Your task to perform on an android device: Go to accessibility settings Image 0: 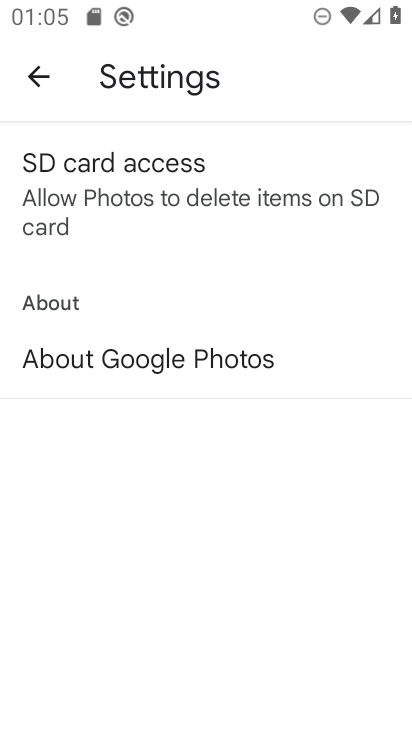
Step 0: press home button
Your task to perform on an android device: Go to accessibility settings Image 1: 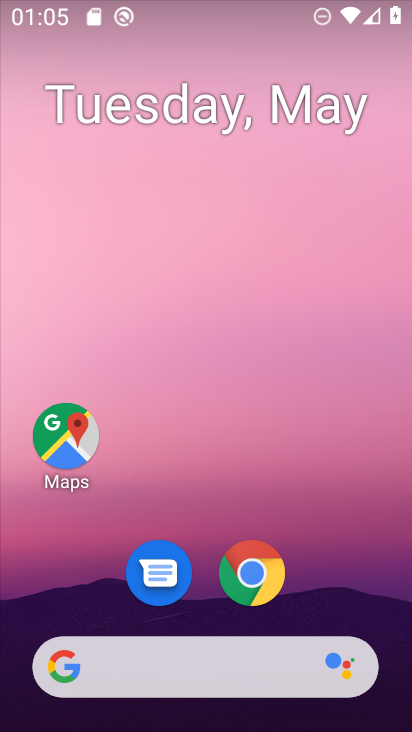
Step 1: drag from (349, 557) to (241, 9)
Your task to perform on an android device: Go to accessibility settings Image 2: 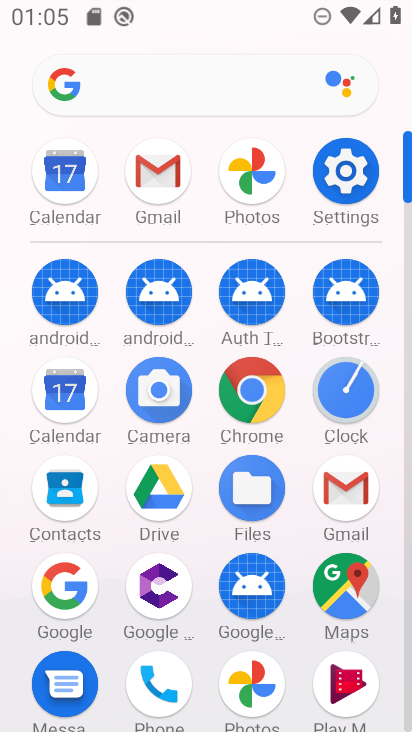
Step 2: click (355, 173)
Your task to perform on an android device: Go to accessibility settings Image 3: 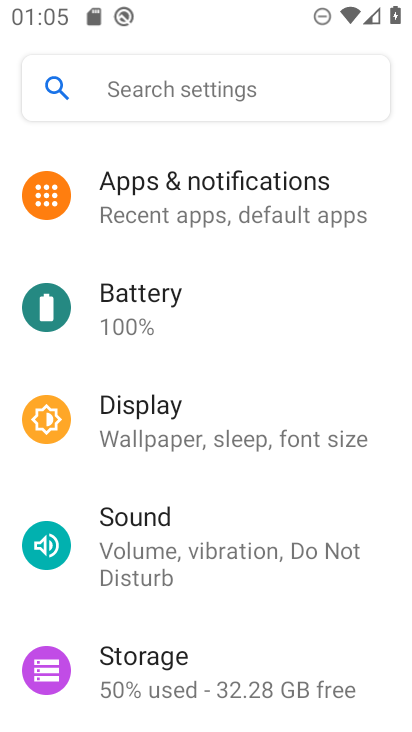
Step 3: drag from (280, 568) to (247, 117)
Your task to perform on an android device: Go to accessibility settings Image 4: 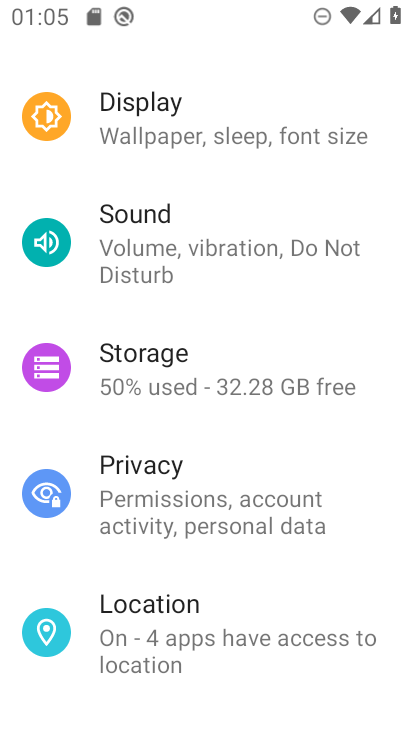
Step 4: drag from (165, 570) to (251, 155)
Your task to perform on an android device: Go to accessibility settings Image 5: 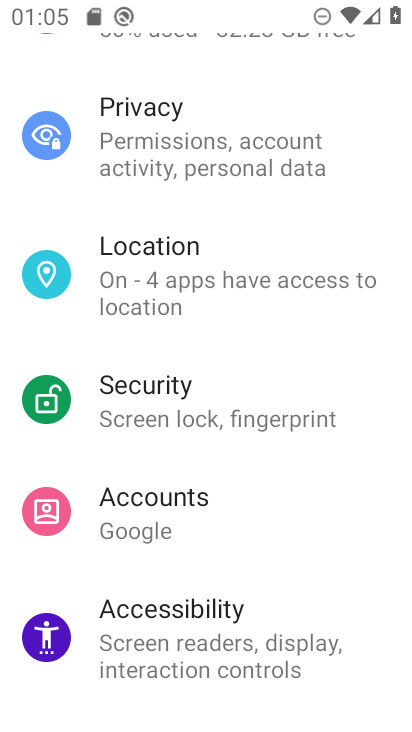
Step 5: click (202, 636)
Your task to perform on an android device: Go to accessibility settings Image 6: 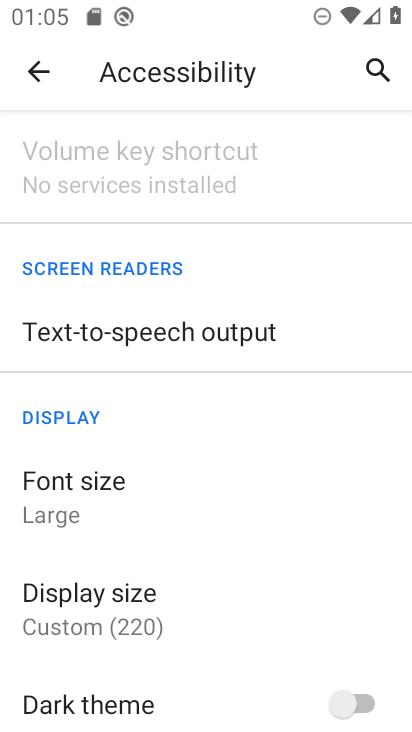
Step 6: task complete